Your task to perform on an android device: toggle javascript in the chrome app Image 0: 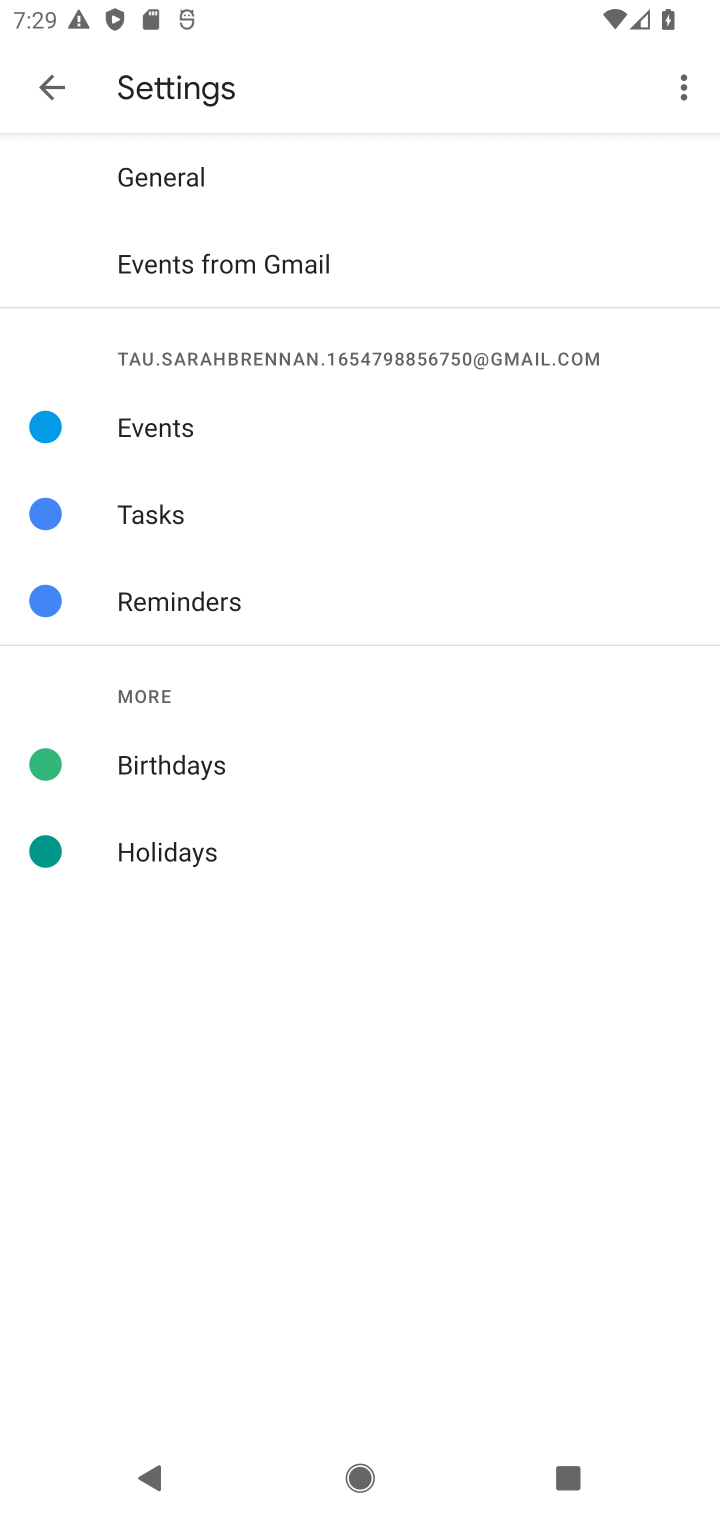
Step 0: press home button
Your task to perform on an android device: toggle javascript in the chrome app Image 1: 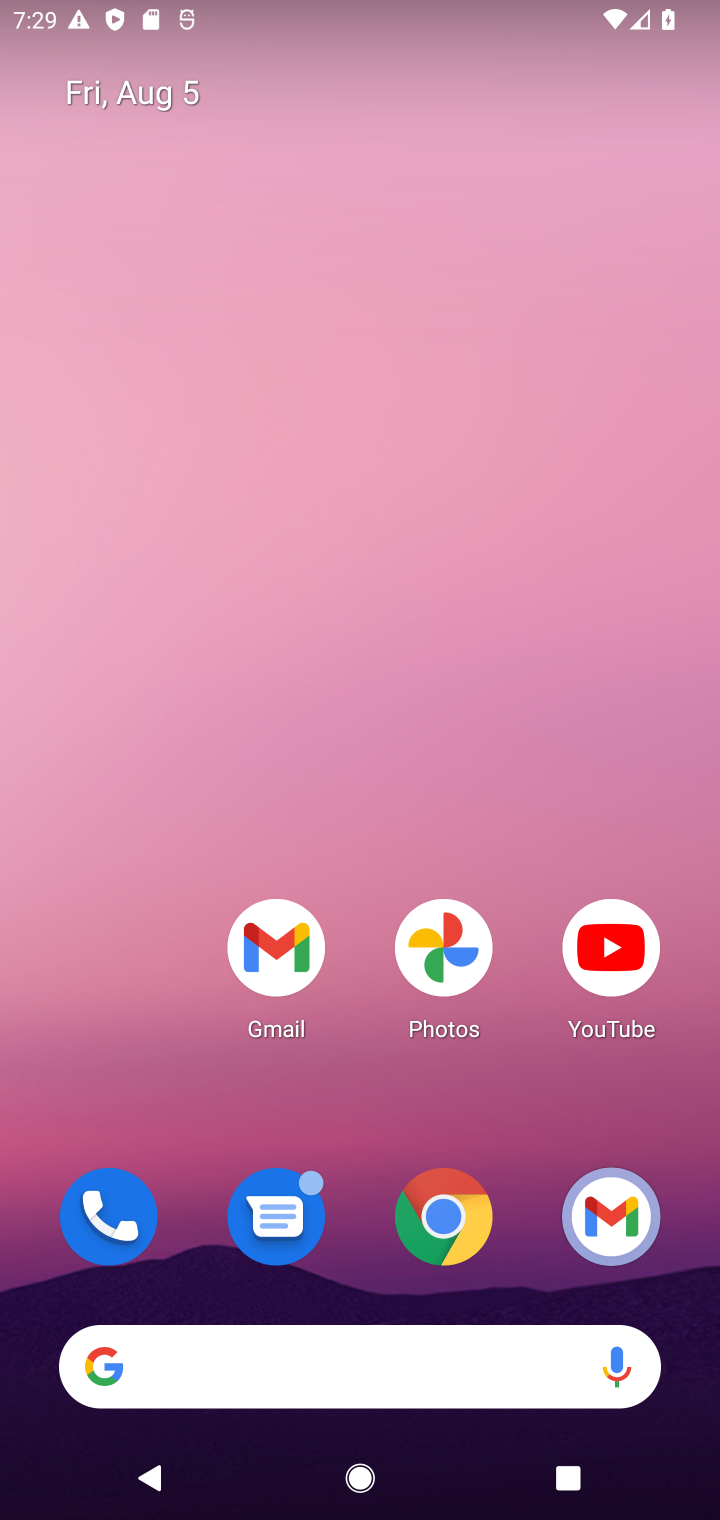
Step 1: click (425, 1209)
Your task to perform on an android device: toggle javascript in the chrome app Image 2: 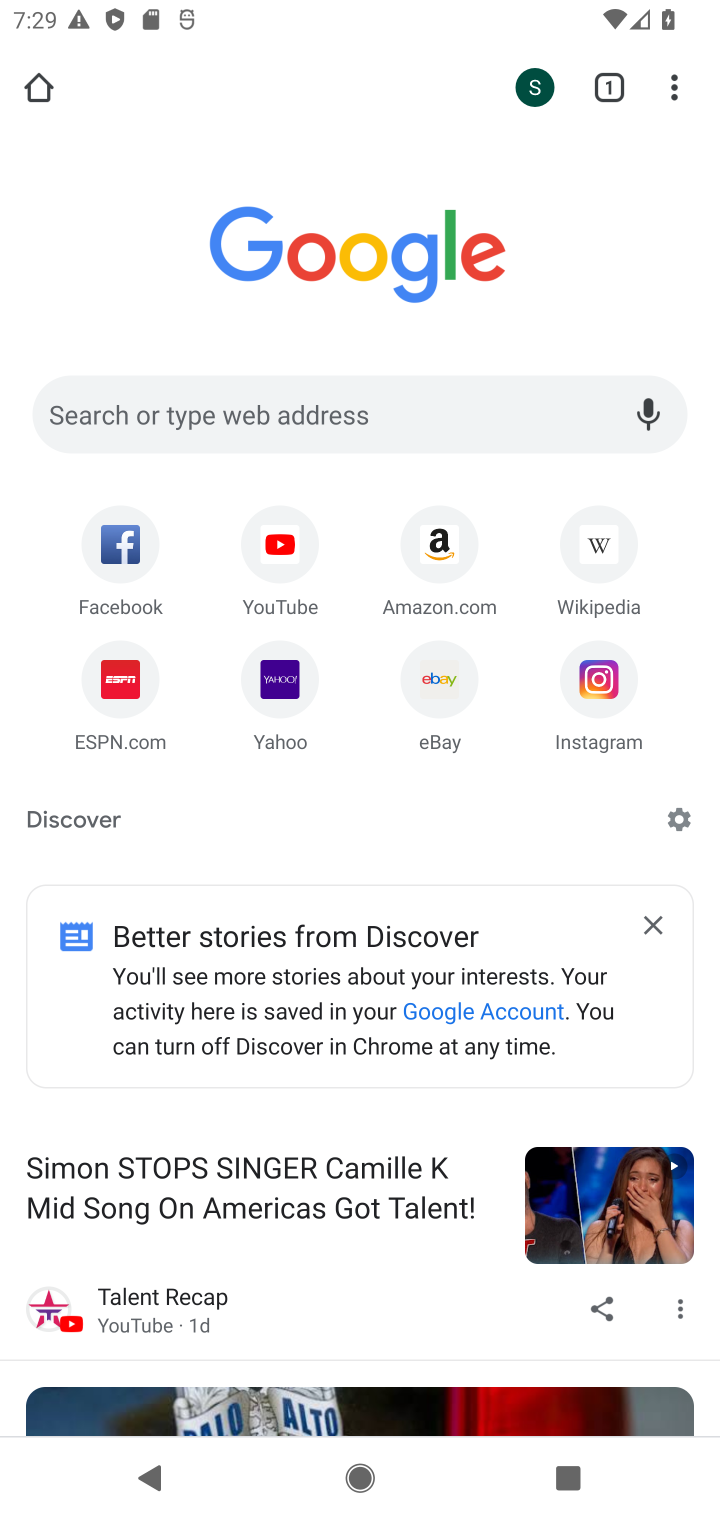
Step 2: click (671, 90)
Your task to perform on an android device: toggle javascript in the chrome app Image 3: 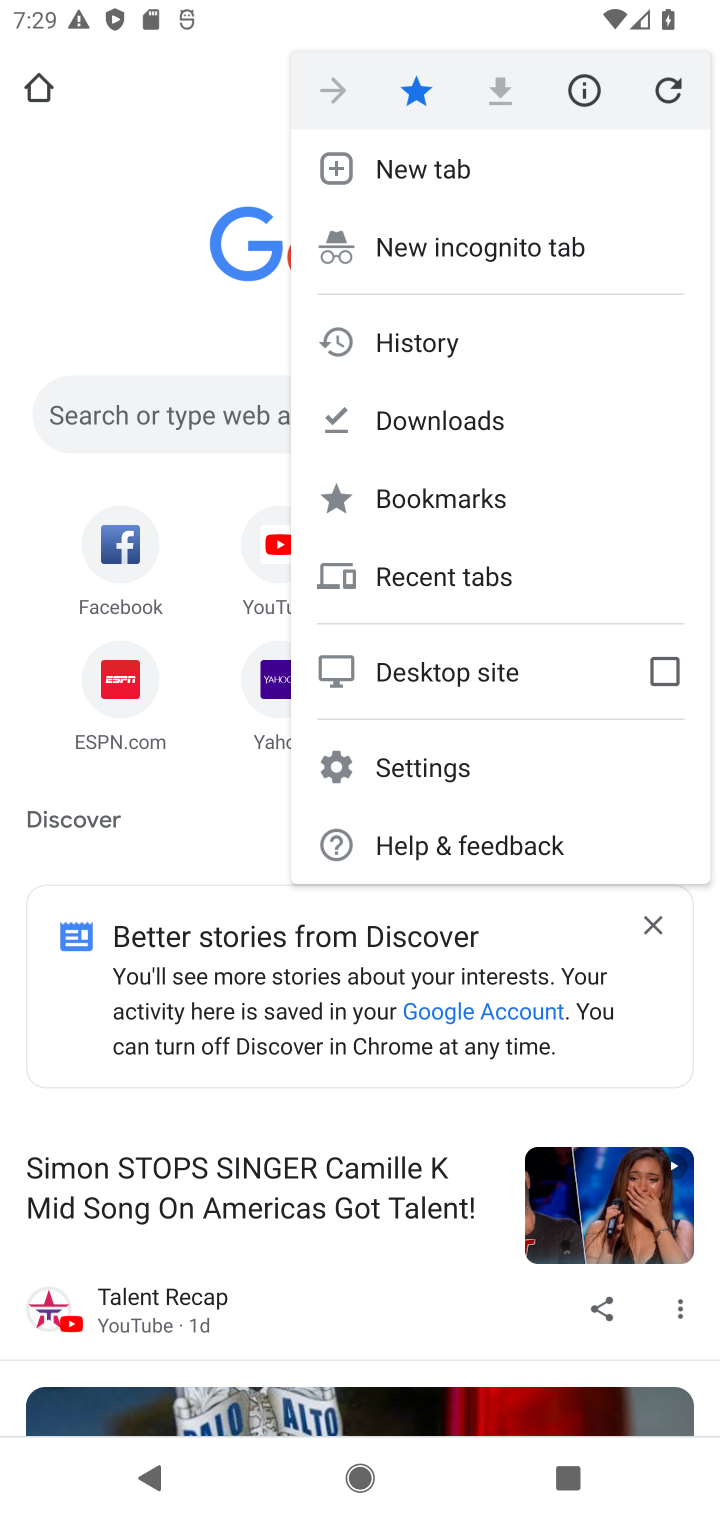
Step 3: click (462, 771)
Your task to perform on an android device: toggle javascript in the chrome app Image 4: 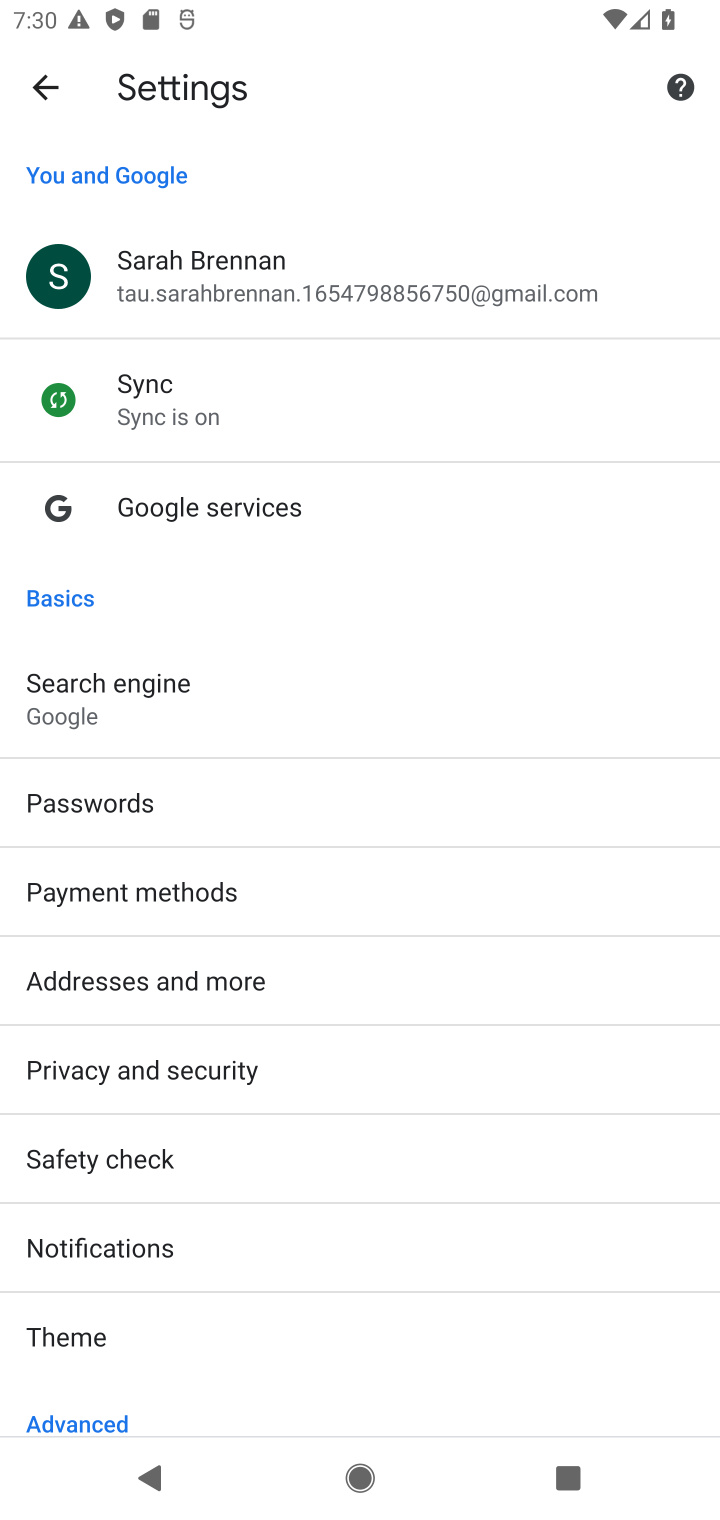
Step 4: drag from (215, 1310) to (175, 728)
Your task to perform on an android device: toggle javascript in the chrome app Image 5: 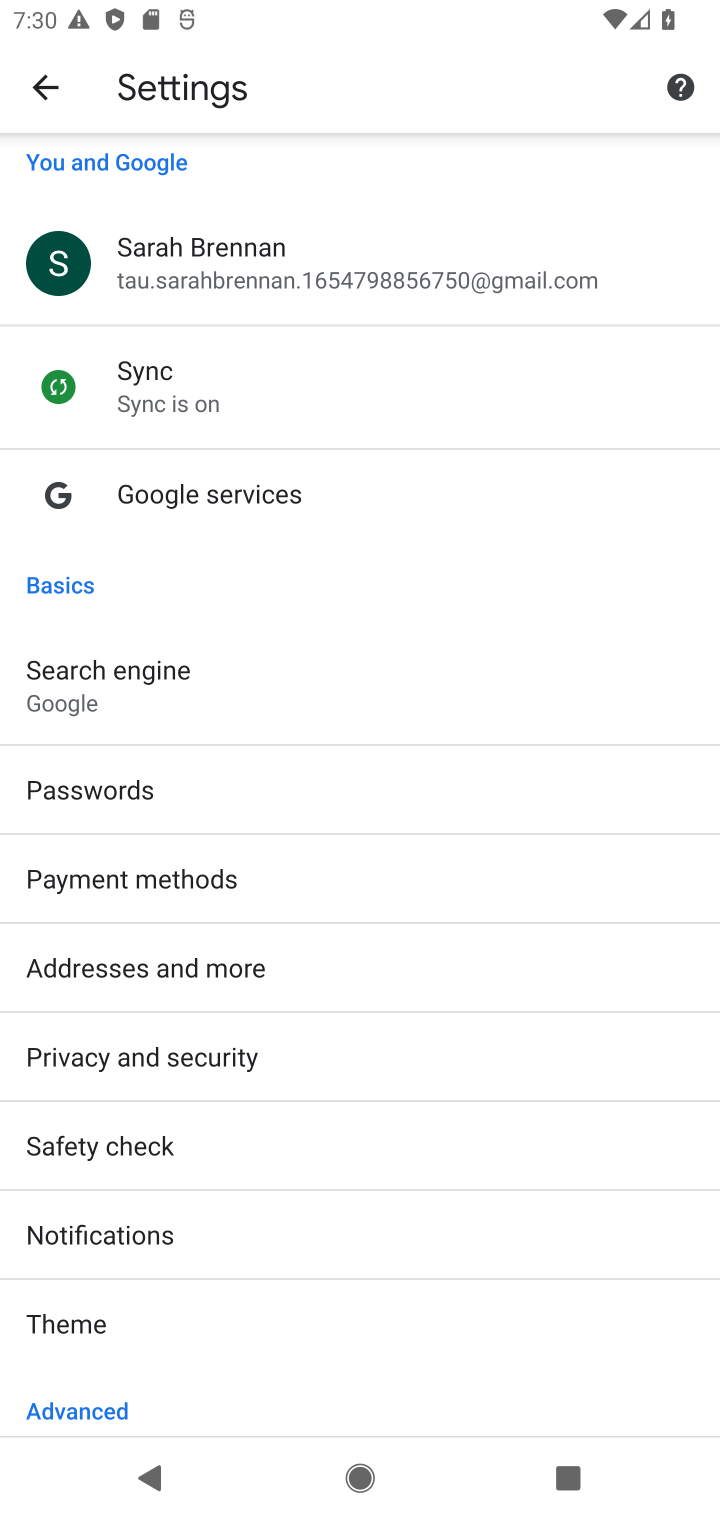
Step 5: drag from (174, 1221) to (105, 757)
Your task to perform on an android device: toggle javascript in the chrome app Image 6: 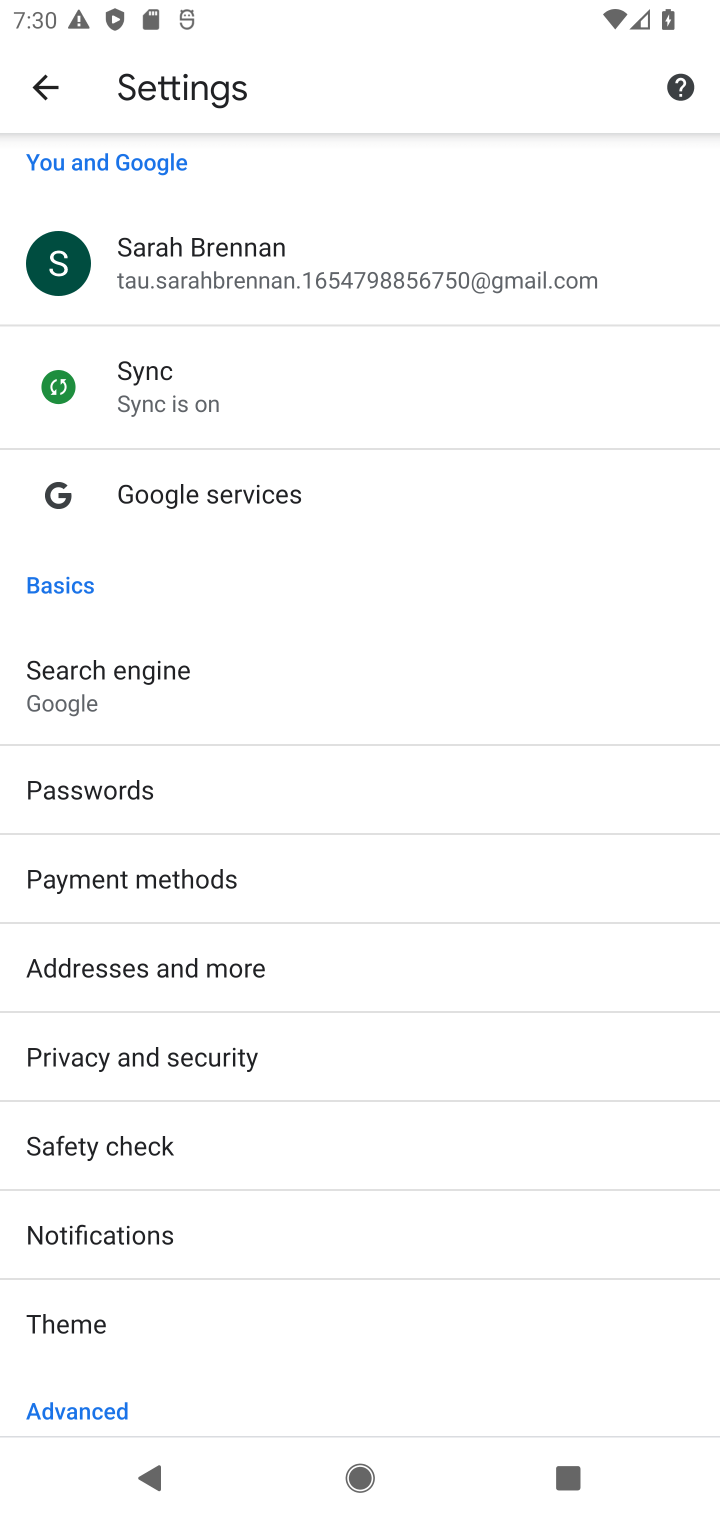
Step 6: drag from (215, 1366) to (172, 195)
Your task to perform on an android device: toggle javascript in the chrome app Image 7: 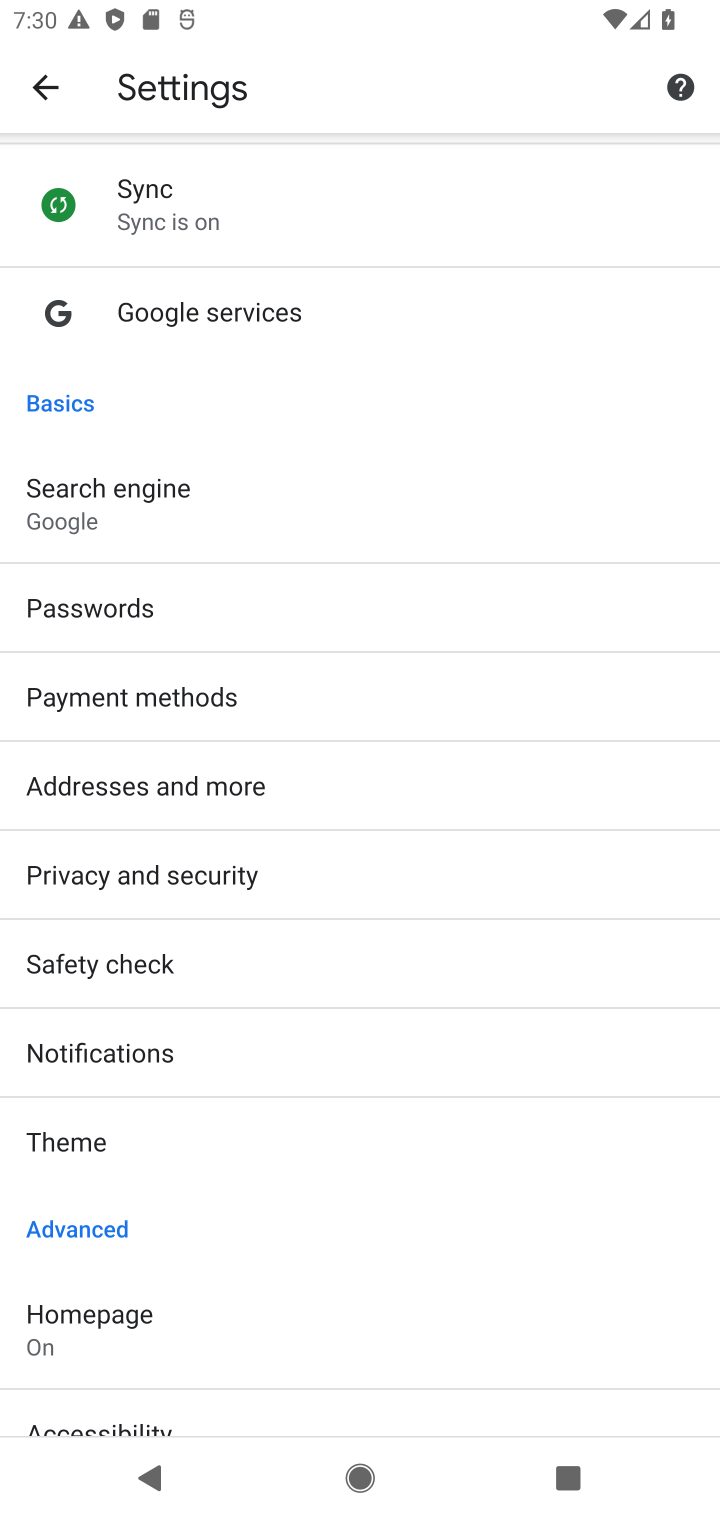
Step 7: drag from (206, 1226) to (127, 351)
Your task to perform on an android device: toggle javascript in the chrome app Image 8: 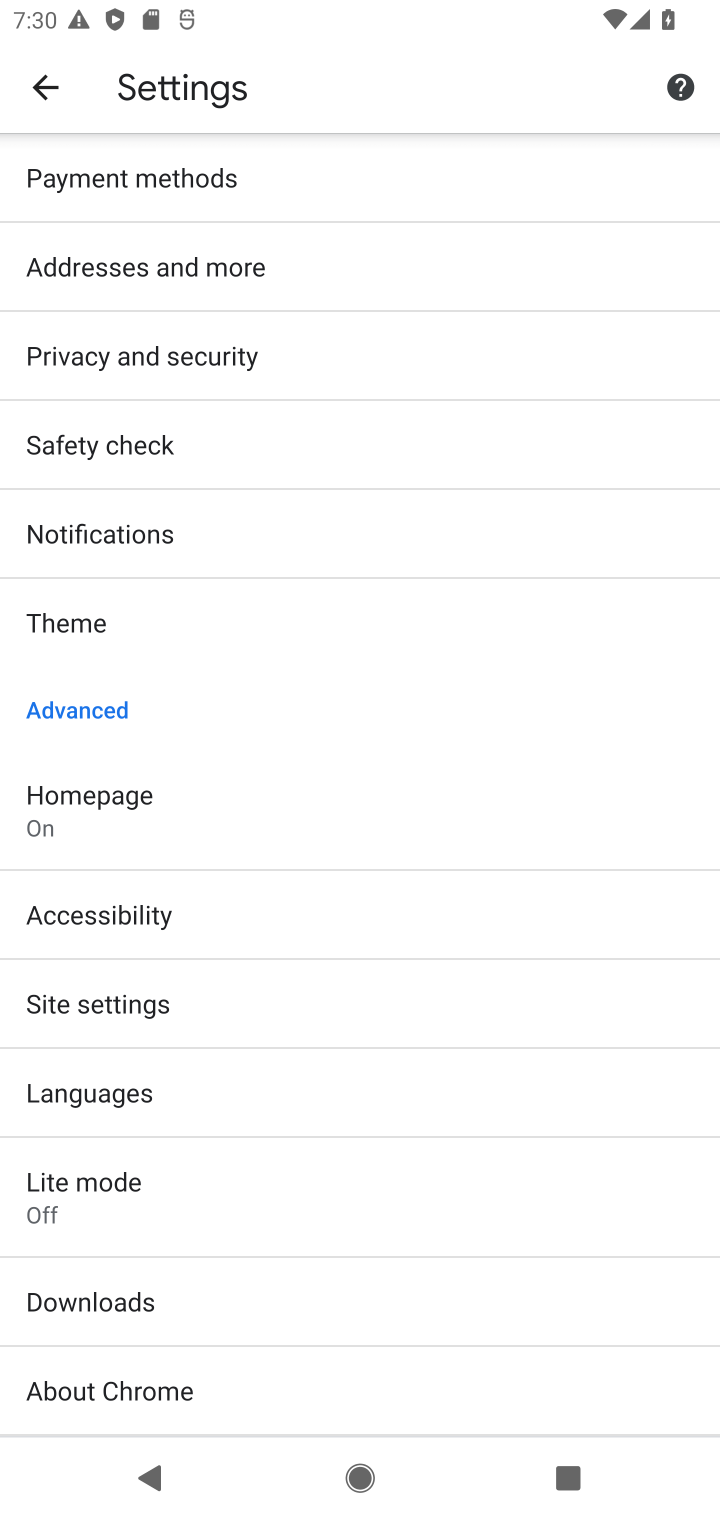
Step 8: click (205, 985)
Your task to perform on an android device: toggle javascript in the chrome app Image 9: 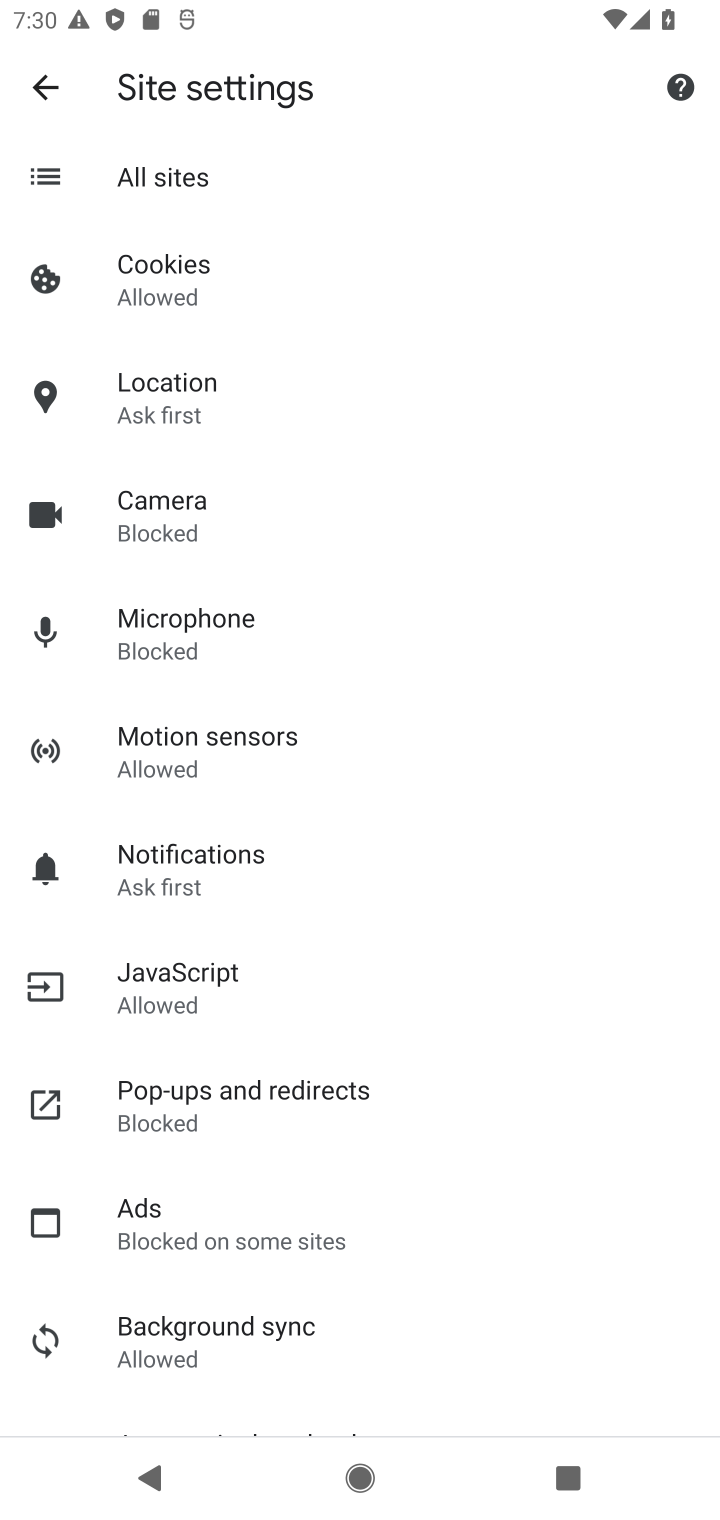
Step 9: click (208, 1004)
Your task to perform on an android device: toggle javascript in the chrome app Image 10: 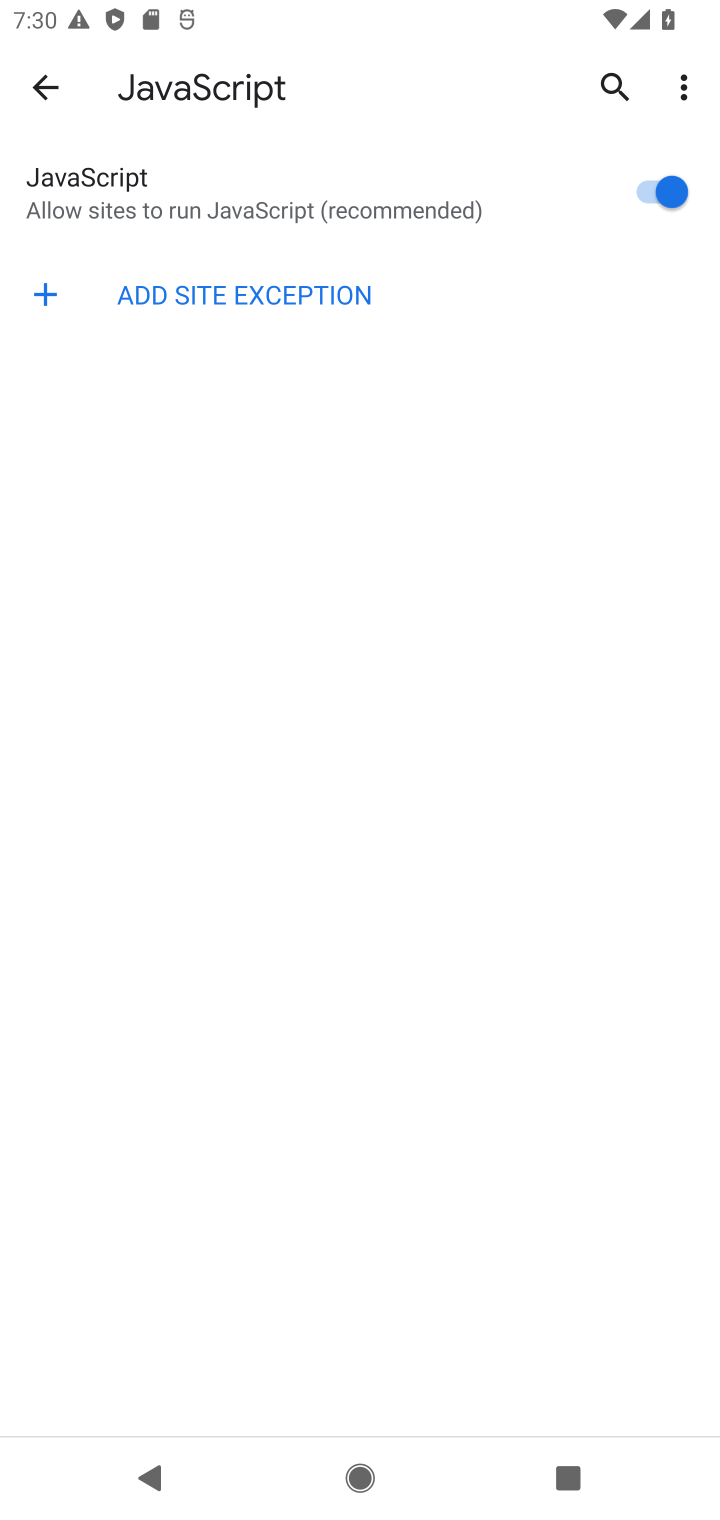
Step 10: click (674, 176)
Your task to perform on an android device: toggle javascript in the chrome app Image 11: 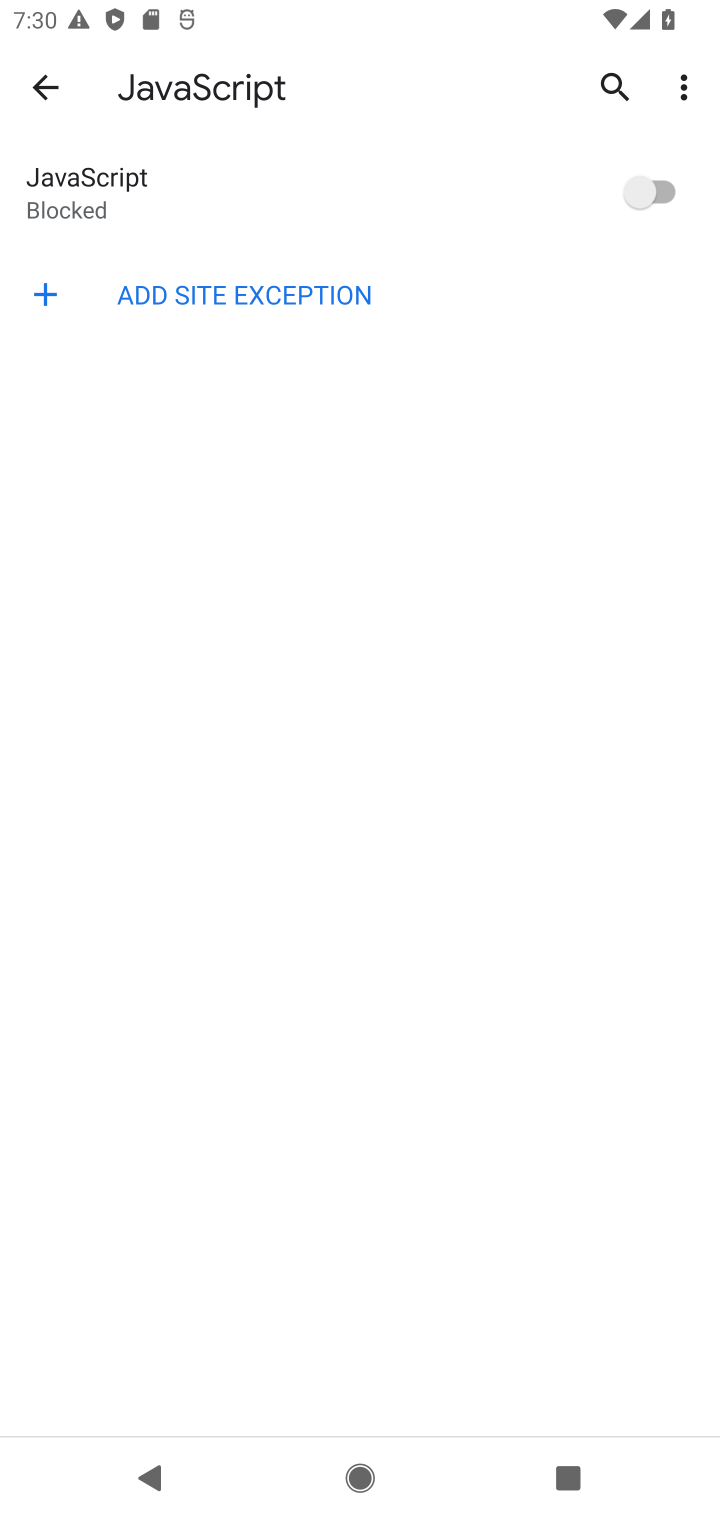
Step 11: task complete